Your task to perform on an android device: Add "dell xps" to the cart on ebay, then select checkout. Image 0: 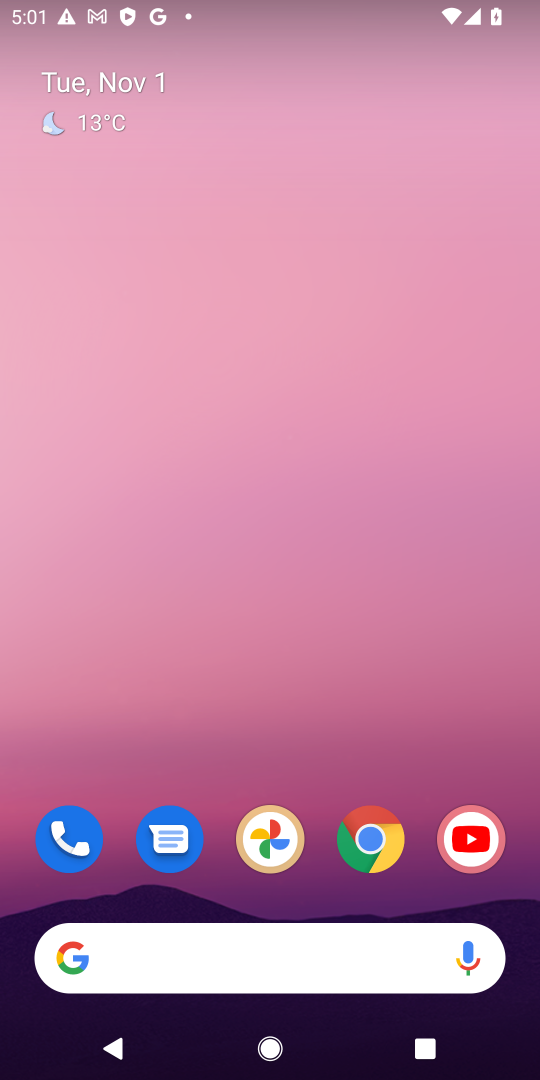
Step 0: drag from (315, 814) to (285, 183)
Your task to perform on an android device: Add "dell xps" to the cart on ebay, then select checkout. Image 1: 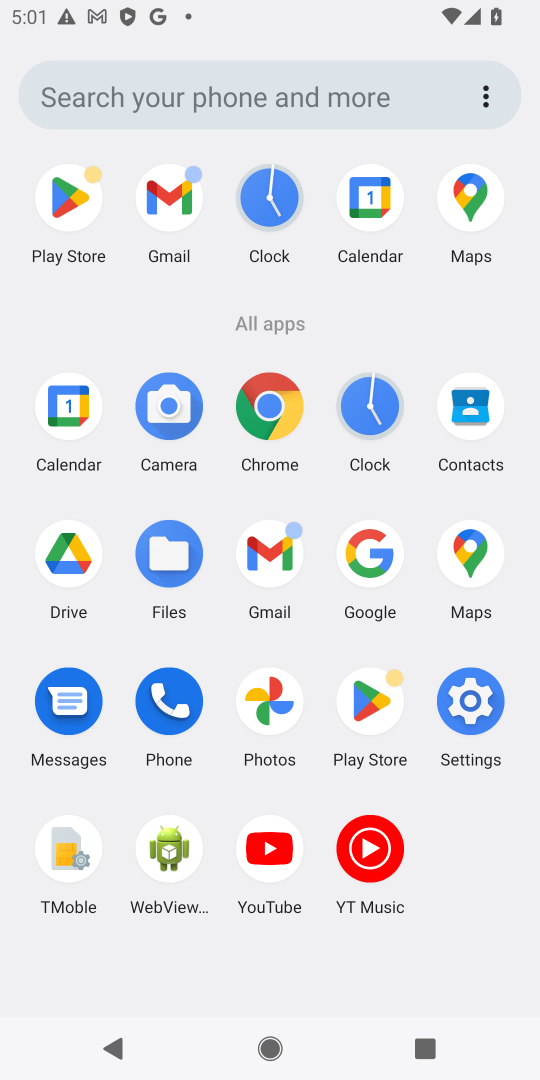
Step 1: click (263, 401)
Your task to perform on an android device: Add "dell xps" to the cart on ebay, then select checkout. Image 2: 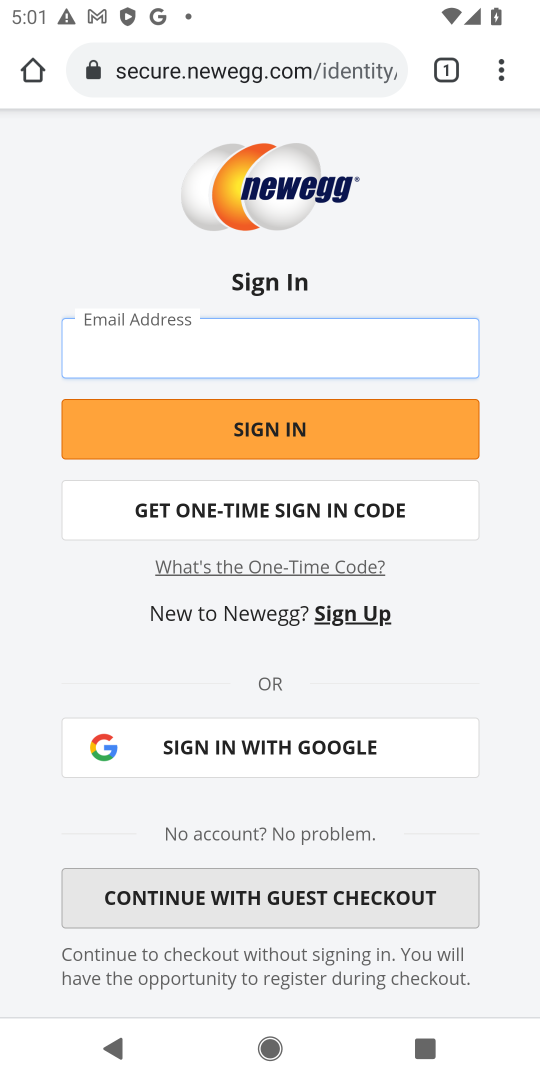
Step 2: click (274, 74)
Your task to perform on an android device: Add "dell xps" to the cart on ebay, then select checkout. Image 3: 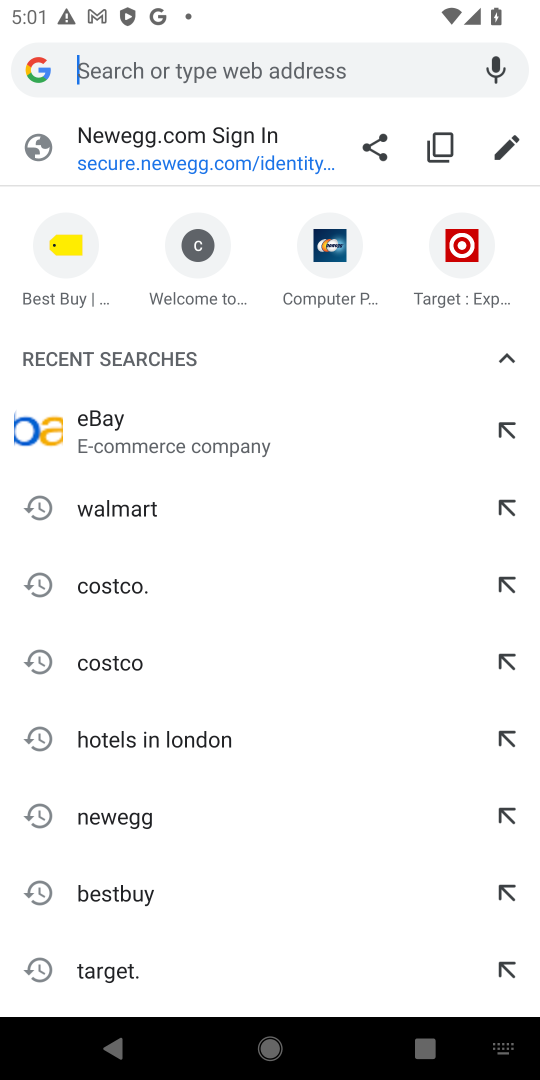
Step 3: type "ebay.com"
Your task to perform on an android device: Add "dell xps" to the cart on ebay, then select checkout. Image 4: 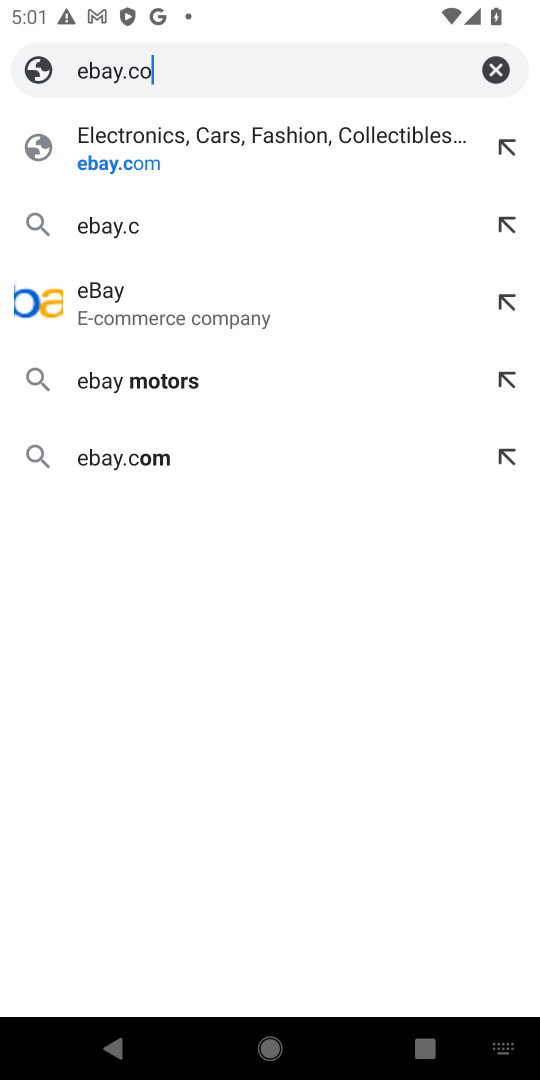
Step 4: press enter
Your task to perform on an android device: Add "dell xps" to the cart on ebay, then select checkout. Image 5: 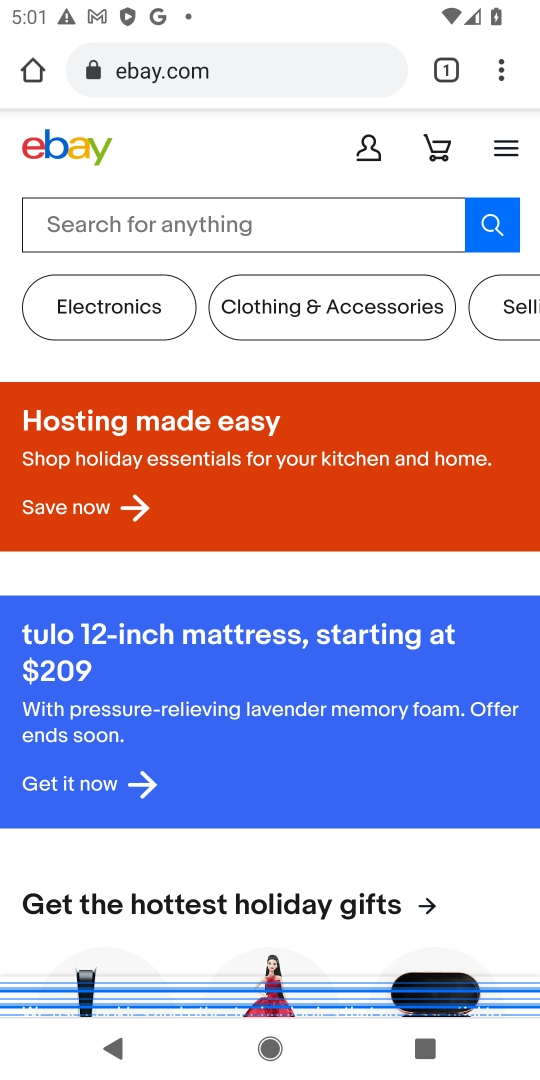
Step 5: click (204, 237)
Your task to perform on an android device: Add "dell xps" to the cart on ebay, then select checkout. Image 6: 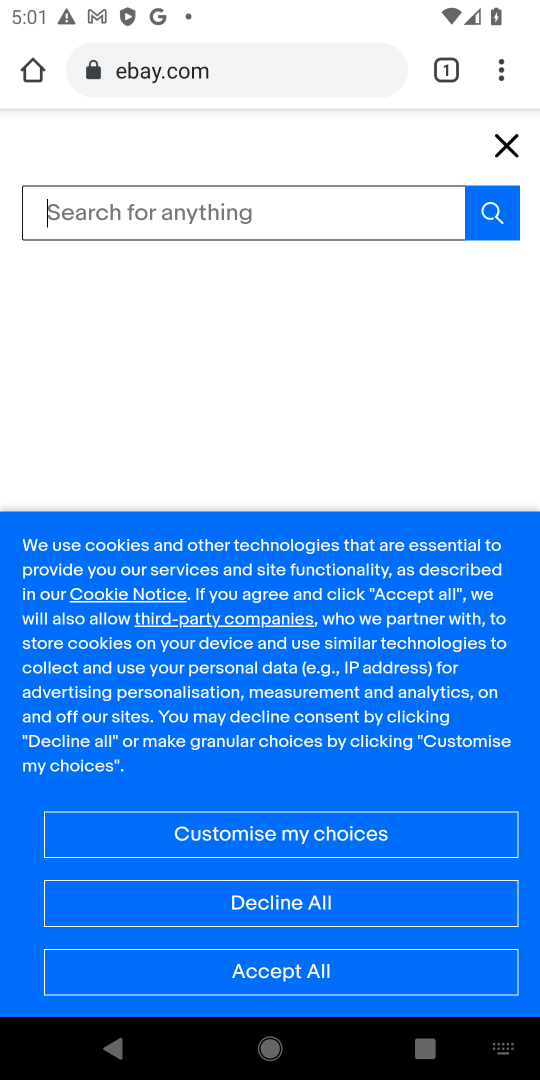
Step 6: type "dell xps"
Your task to perform on an android device: Add "dell xps" to the cart on ebay, then select checkout. Image 7: 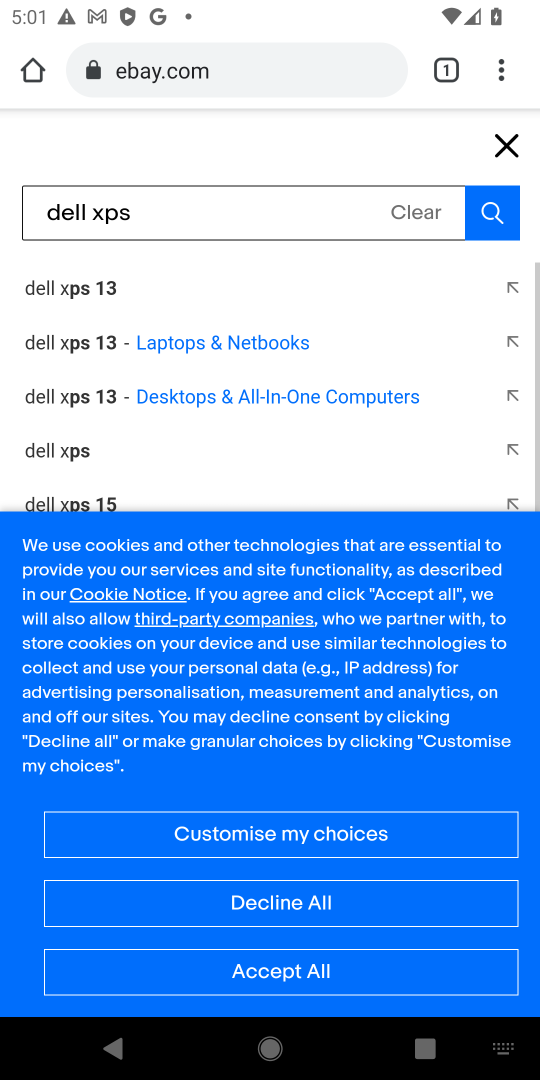
Step 7: press enter
Your task to perform on an android device: Add "dell xps" to the cart on ebay, then select checkout. Image 8: 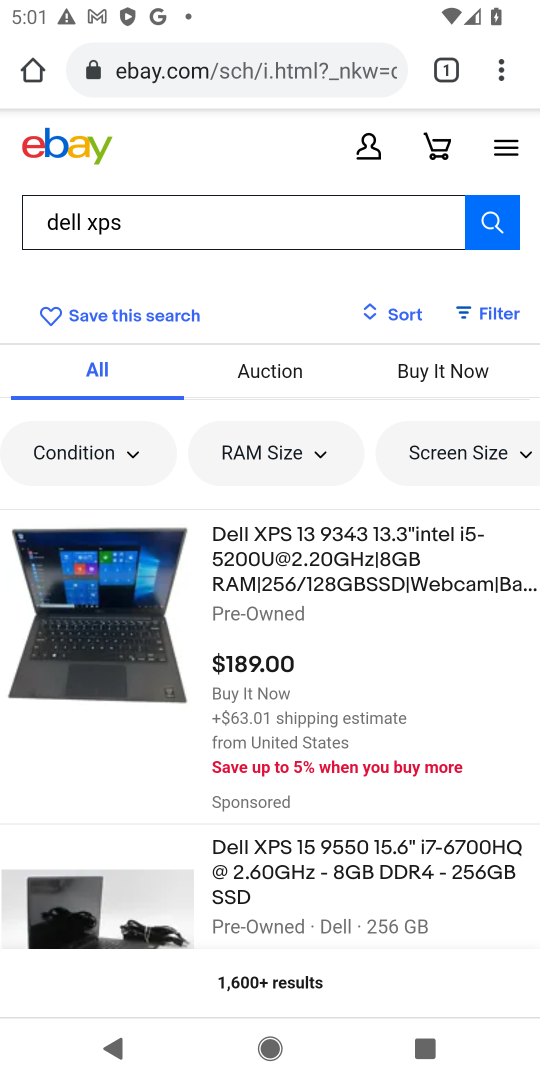
Step 8: click (70, 629)
Your task to perform on an android device: Add "dell xps" to the cart on ebay, then select checkout. Image 9: 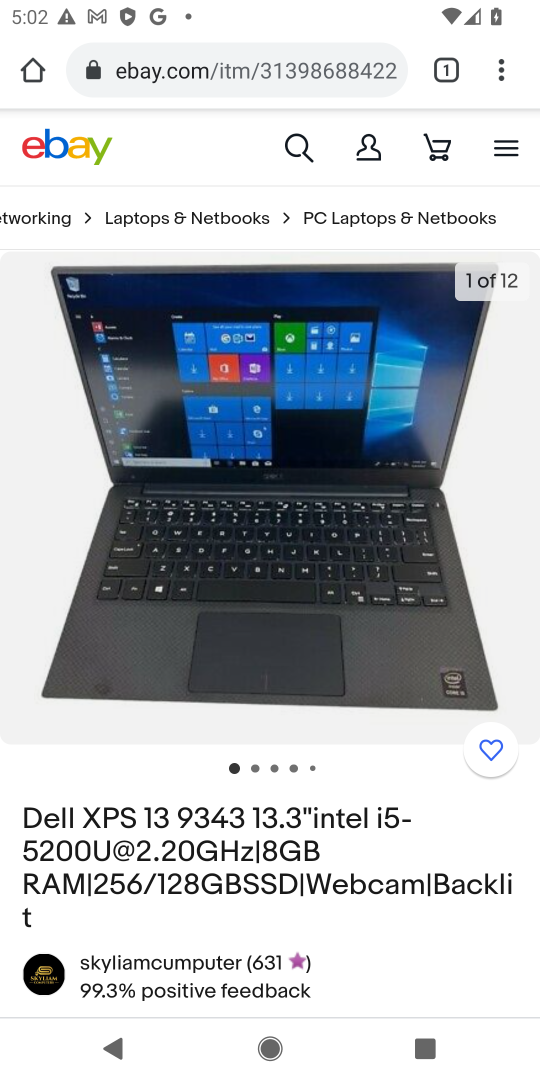
Step 9: drag from (245, 835) to (389, 71)
Your task to perform on an android device: Add "dell xps" to the cart on ebay, then select checkout. Image 10: 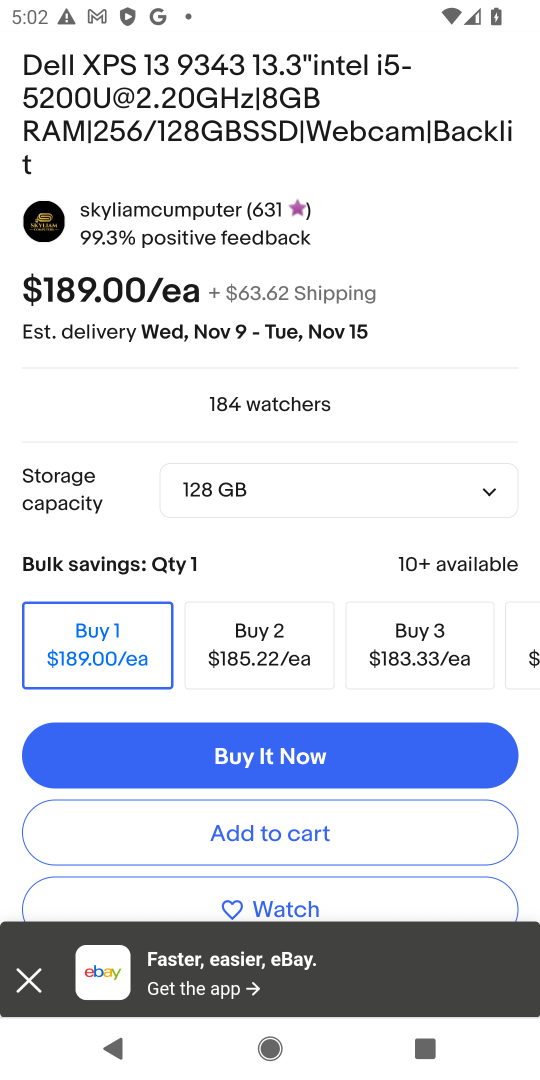
Step 10: click (273, 830)
Your task to perform on an android device: Add "dell xps" to the cart on ebay, then select checkout. Image 11: 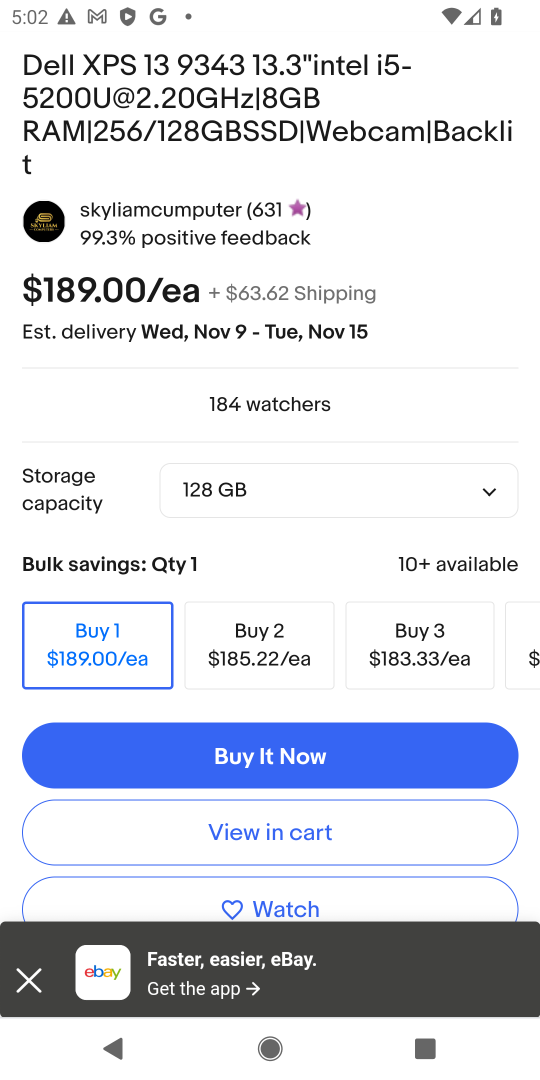
Step 11: click (302, 843)
Your task to perform on an android device: Add "dell xps" to the cart on ebay, then select checkout. Image 12: 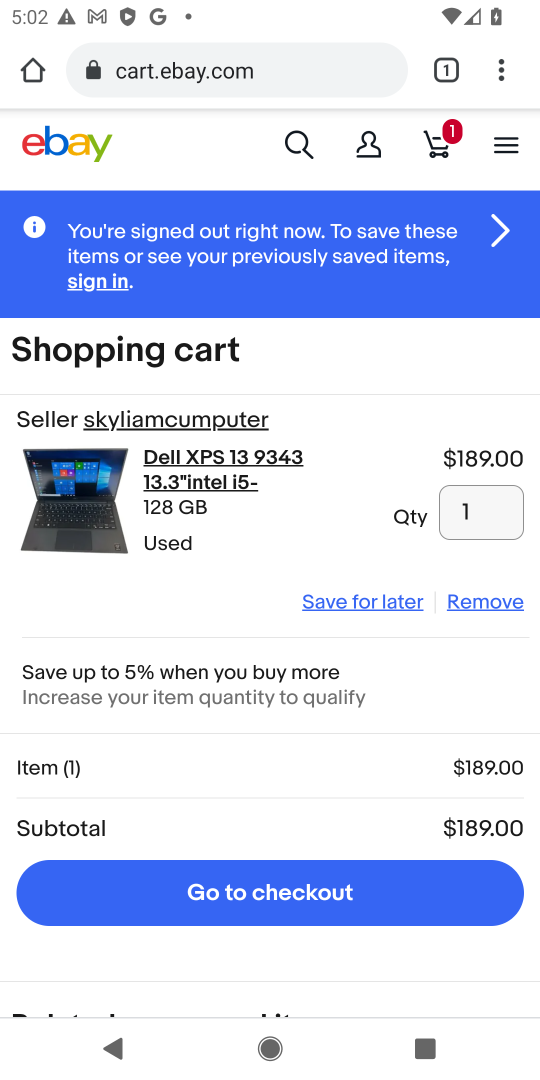
Step 12: click (318, 897)
Your task to perform on an android device: Add "dell xps" to the cart on ebay, then select checkout. Image 13: 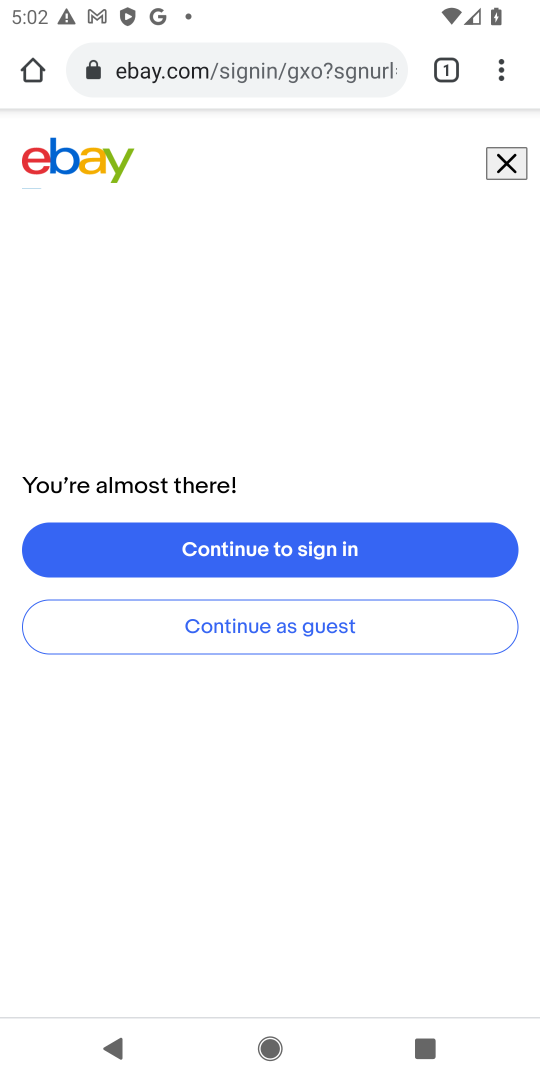
Step 13: task complete